Your task to perform on an android device: Open network settings Image 0: 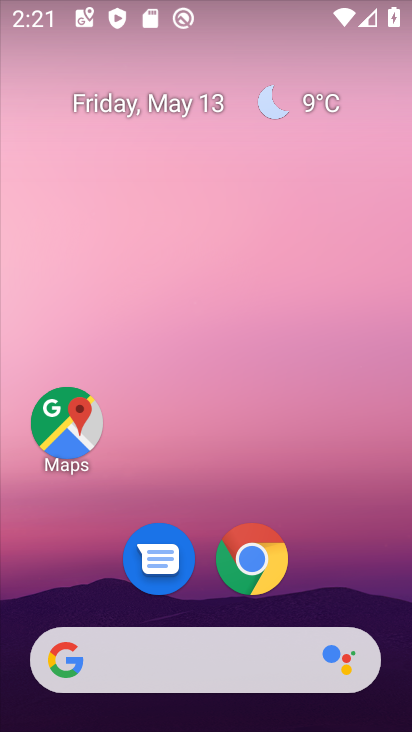
Step 0: drag from (246, 224) to (239, 23)
Your task to perform on an android device: Open network settings Image 1: 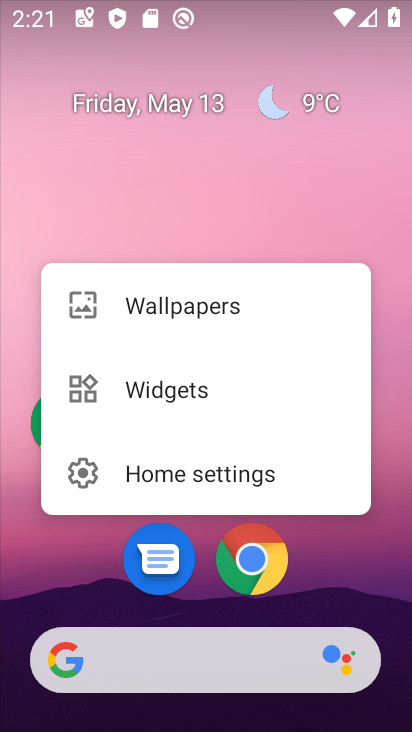
Step 1: click (330, 604)
Your task to perform on an android device: Open network settings Image 2: 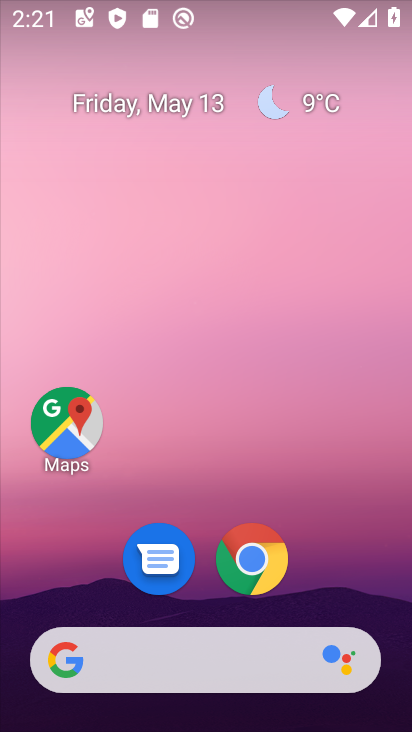
Step 2: drag from (304, 141) to (308, 13)
Your task to perform on an android device: Open network settings Image 3: 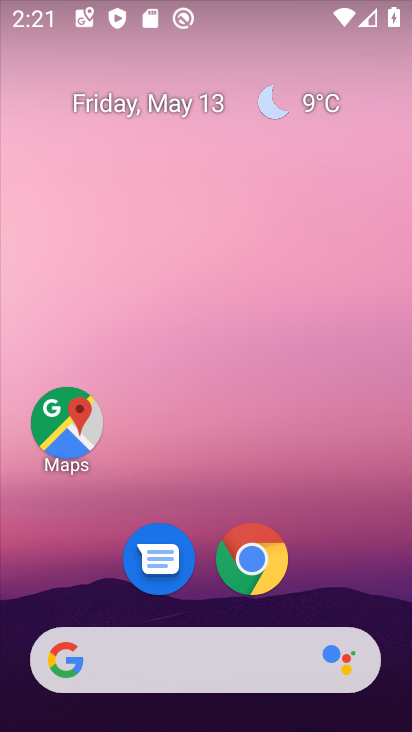
Step 3: drag from (305, 578) to (285, 6)
Your task to perform on an android device: Open network settings Image 4: 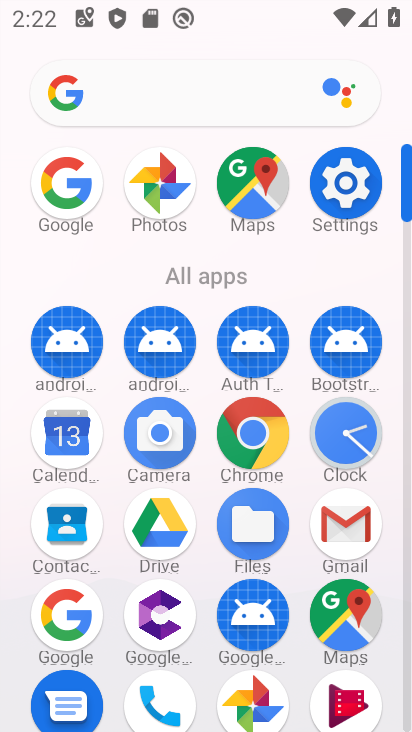
Step 4: click (352, 213)
Your task to perform on an android device: Open network settings Image 5: 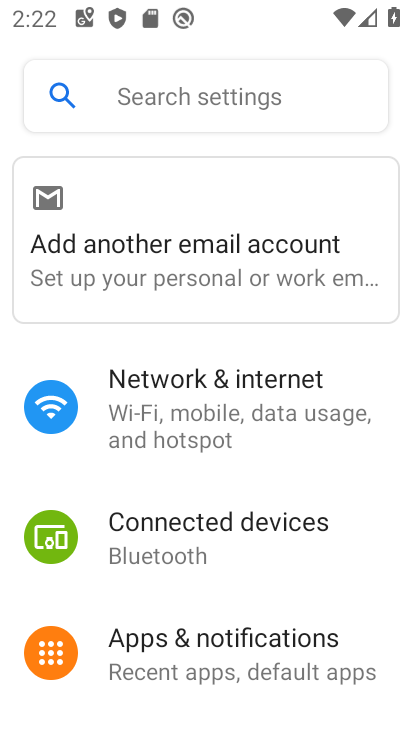
Step 5: click (209, 403)
Your task to perform on an android device: Open network settings Image 6: 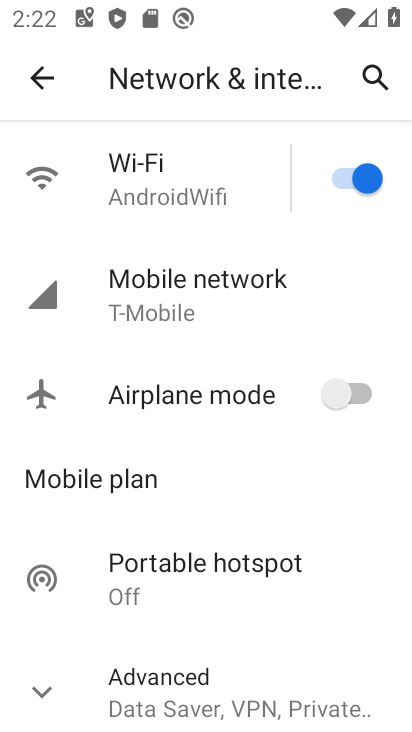
Step 6: task complete